Your task to perform on an android device: How much does a 2 bedroom apartment rent for in Chicago? Image 0: 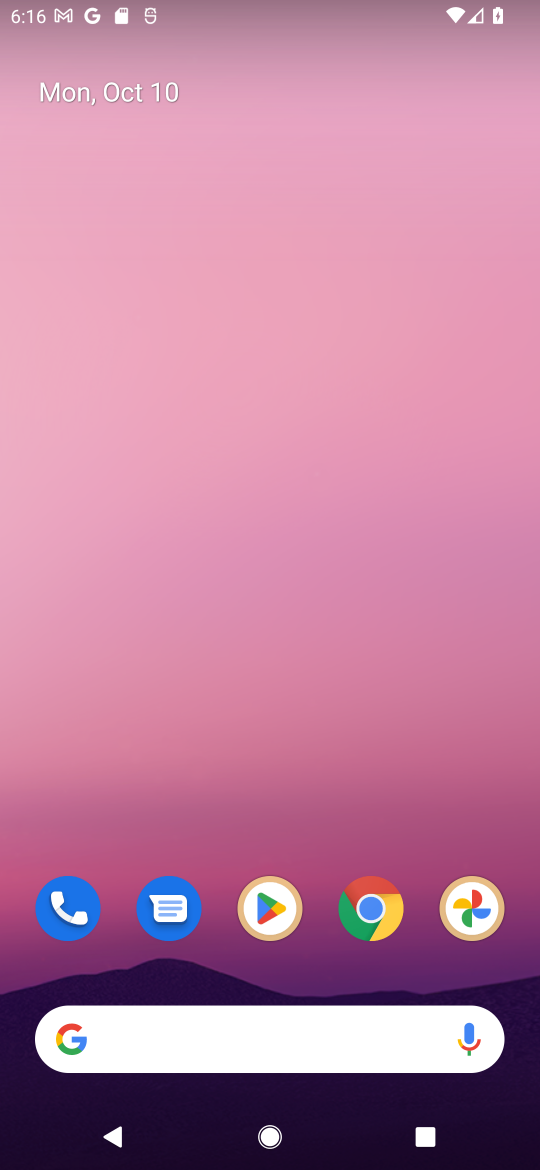
Step 0: drag from (325, 973) to (466, 49)
Your task to perform on an android device: How much does a 2 bedroom apartment rent for in Chicago? Image 1: 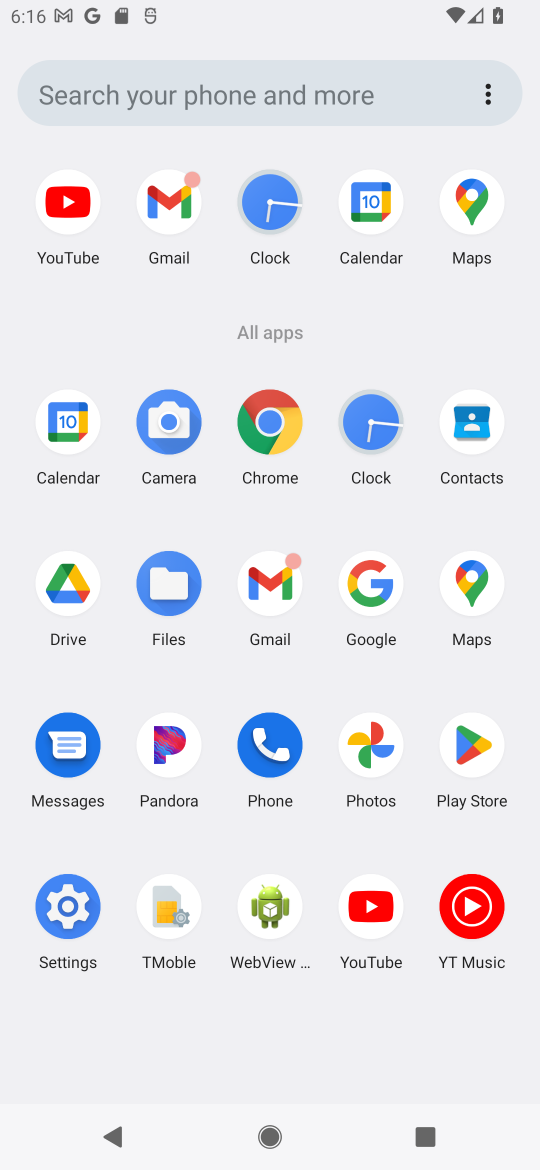
Step 1: click (274, 417)
Your task to perform on an android device: How much does a 2 bedroom apartment rent for in Chicago? Image 2: 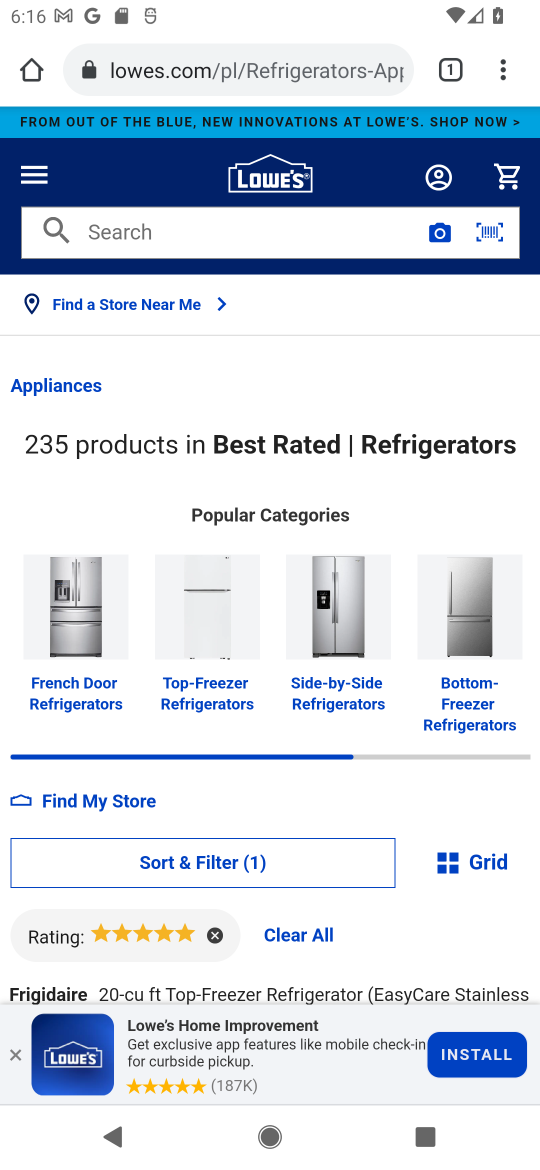
Step 2: click (292, 96)
Your task to perform on an android device: How much does a 2 bedroom apartment rent for in Chicago? Image 3: 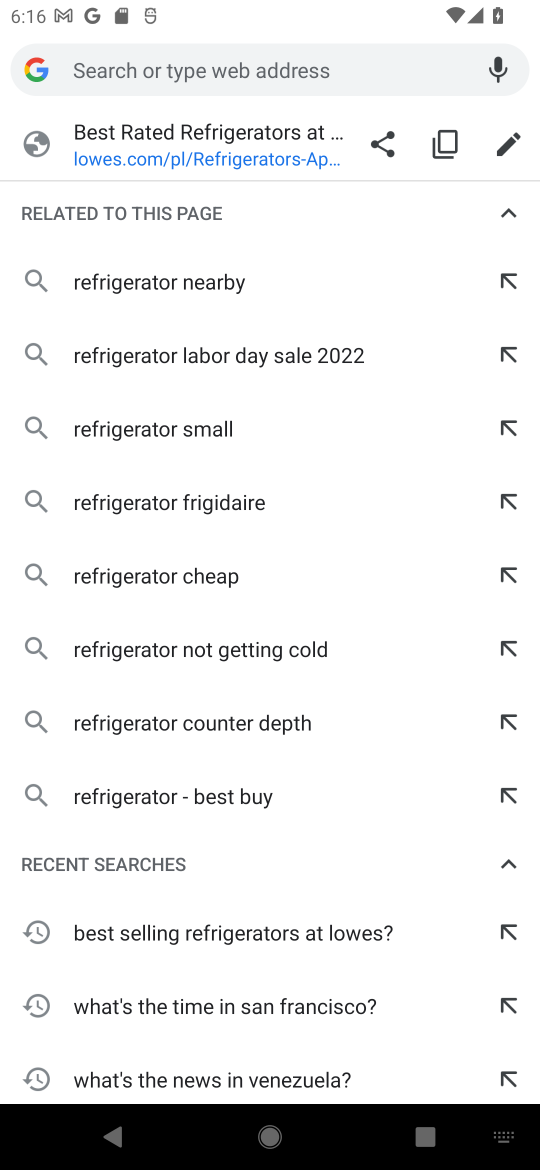
Step 3: type "How much does a 2 bedroom apartment rent for in Chicago?"
Your task to perform on an android device: How much does a 2 bedroom apartment rent for in Chicago? Image 4: 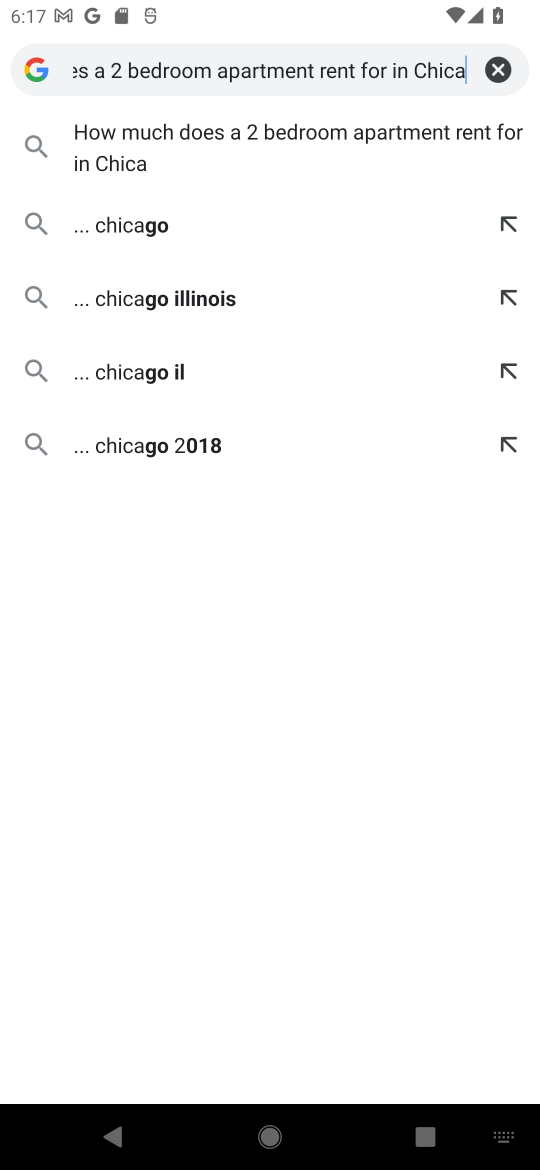
Step 4: type "go?"
Your task to perform on an android device: How much does a 2 bedroom apartment rent for in Chicago? Image 5: 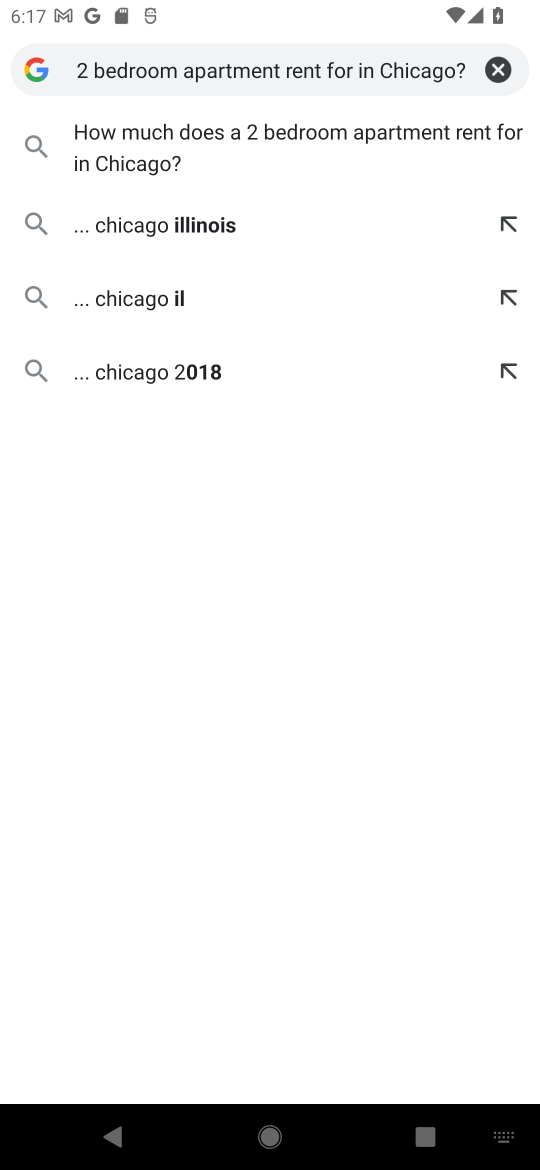
Step 5: press enter
Your task to perform on an android device: How much does a 2 bedroom apartment rent for in Chicago? Image 6: 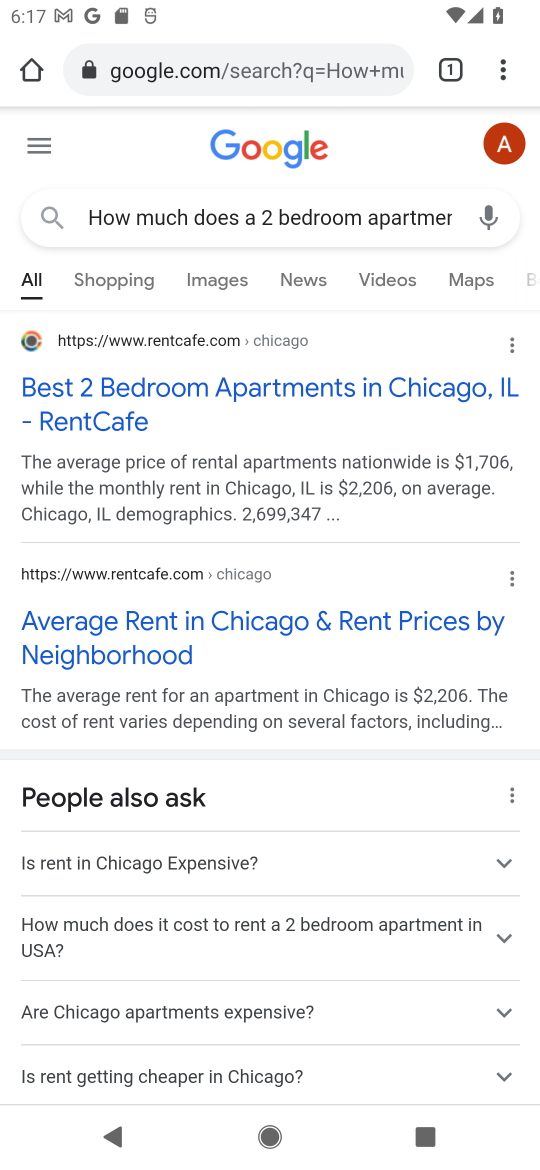
Step 6: click (348, 391)
Your task to perform on an android device: How much does a 2 bedroom apartment rent for in Chicago? Image 7: 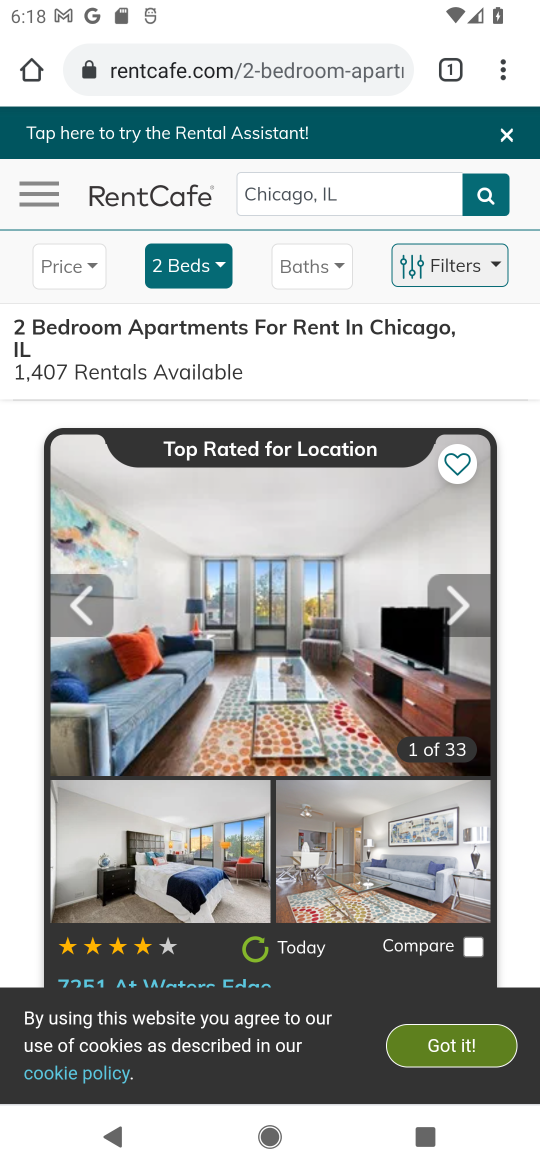
Step 7: task complete